Your task to perform on an android device: turn on the 24-hour format for clock Image 0: 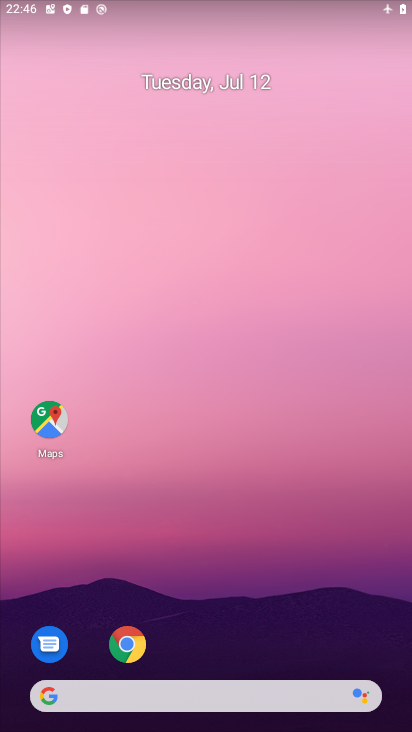
Step 0: drag from (252, 722) to (235, 17)
Your task to perform on an android device: turn on the 24-hour format for clock Image 1: 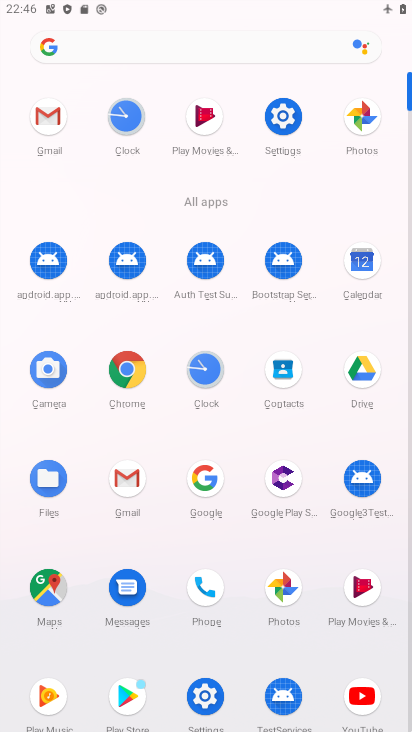
Step 1: click (197, 379)
Your task to perform on an android device: turn on the 24-hour format for clock Image 2: 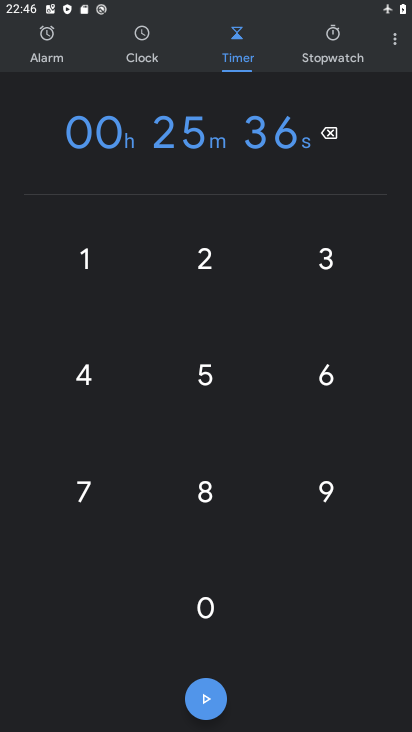
Step 2: click (396, 32)
Your task to perform on an android device: turn on the 24-hour format for clock Image 3: 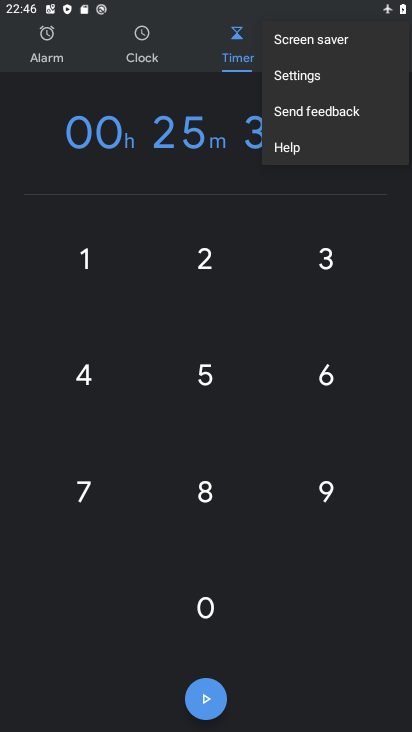
Step 3: click (328, 70)
Your task to perform on an android device: turn on the 24-hour format for clock Image 4: 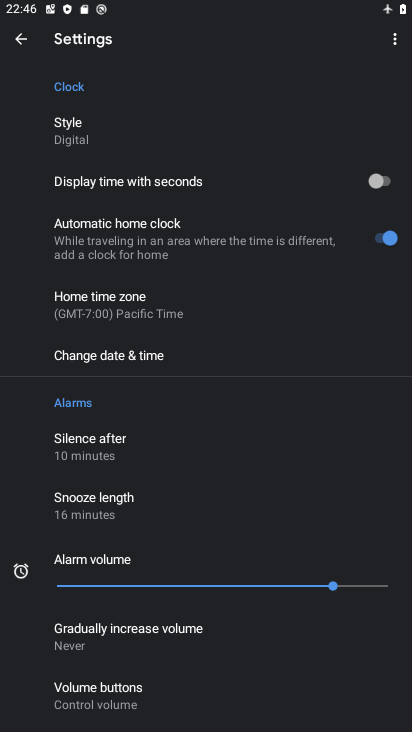
Step 4: click (193, 354)
Your task to perform on an android device: turn on the 24-hour format for clock Image 5: 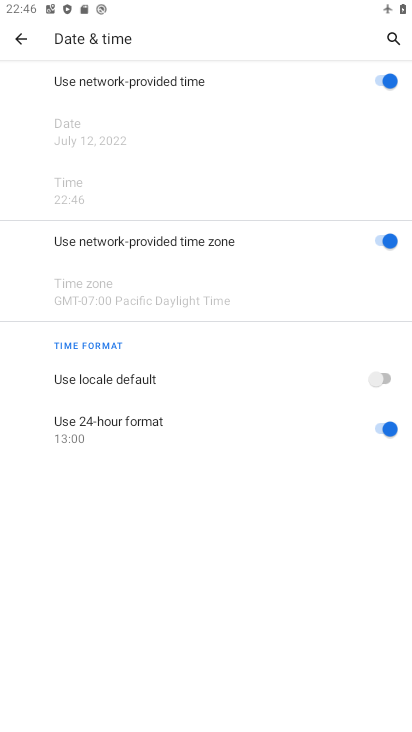
Step 5: task complete